Your task to perform on an android device: turn on notifications settings in the gmail app Image 0: 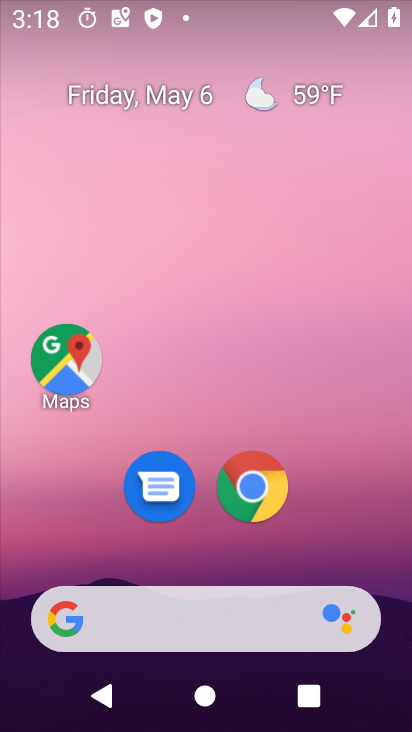
Step 0: drag from (334, 515) to (336, 12)
Your task to perform on an android device: turn on notifications settings in the gmail app Image 1: 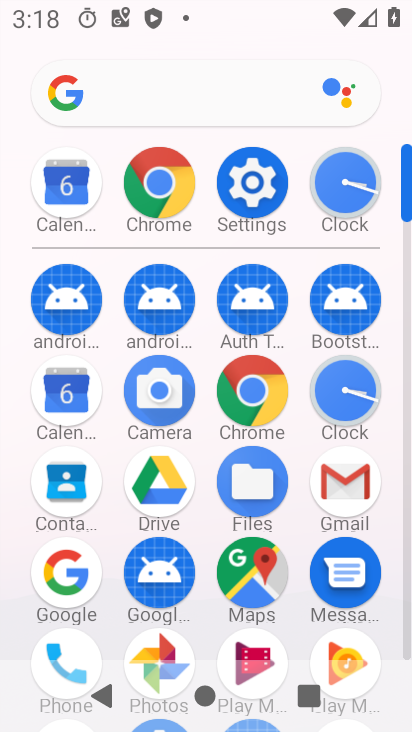
Step 1: click (348, 484)
Your task to perform on an android device: turn on notifications settings in the gmail app Image 2: 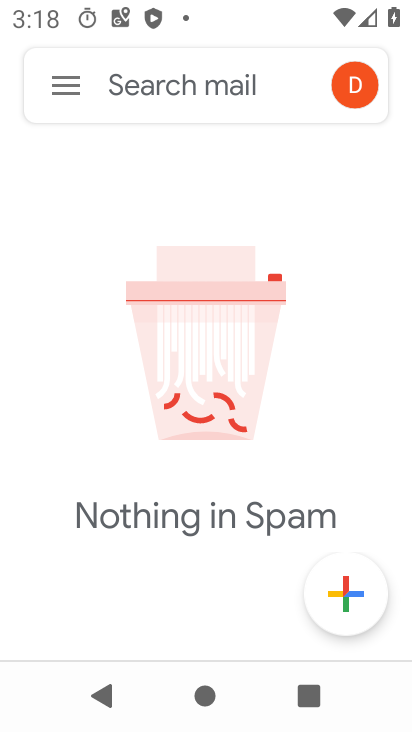
Step 2: click (66, 89)
Your task to perform on an android device: turn on notifications settings in the gmail app Image 3: 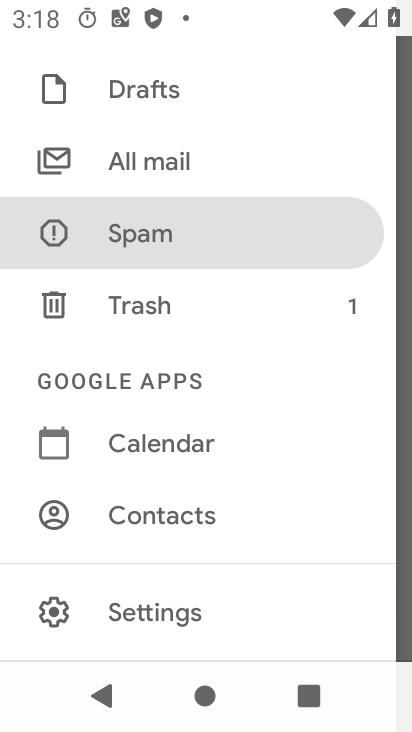
Step 3: click (164, 611)
Your task to perform on an android device: turn on notifications settings in the gmail app Image 4: 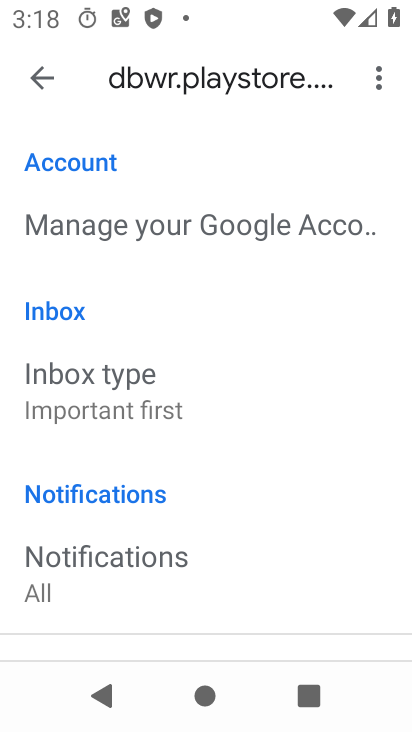
Step 4: click (42, 80)
Your task to perform on an android device: turn on notifications settings in the gmail app Image 5: 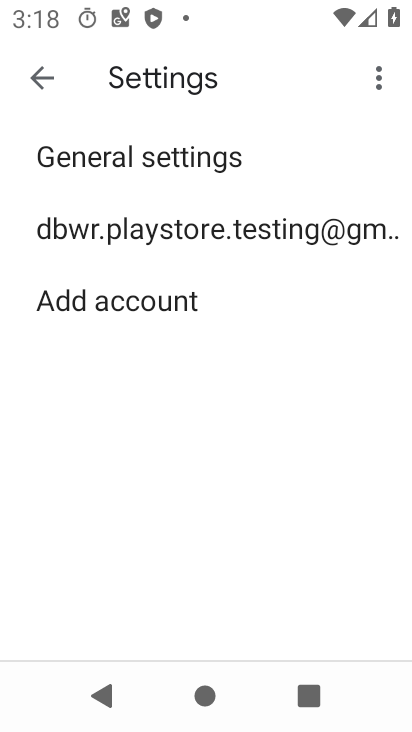
Step 5: click (96, 156)
Your task to perform on an android device: turn on notifications settings in the gmail app Image 6: 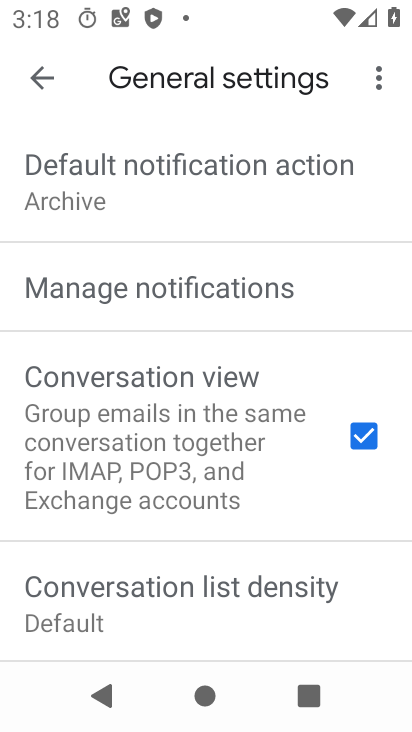
Step 6: click (131, 285)
Your task to perform on an android device: turn on notifications settings in the gmail app Image 7: 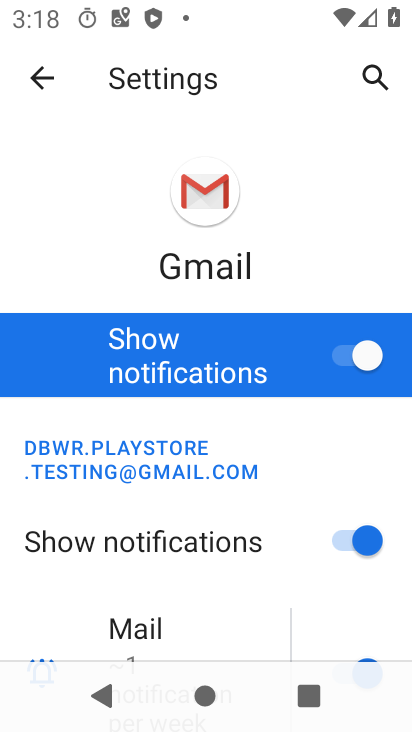
Step 7: task complete